Your task to perform on an android device: What's the weather going to be tomorrow? Image 0: 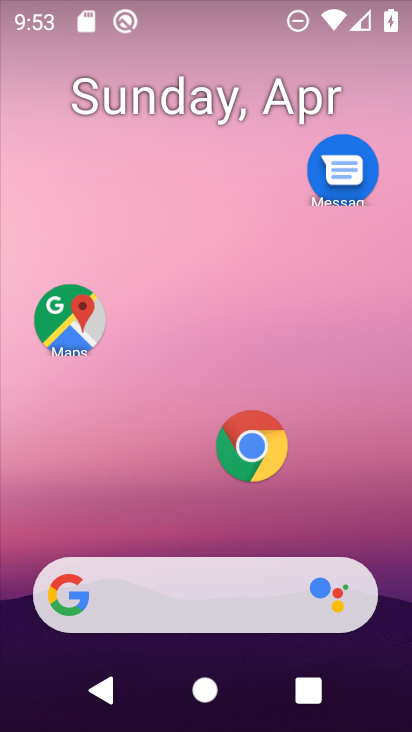
Step 0: click (344, 524)
Your task to perform on an android device: What's the weather going to be tomorrow? Image 1: 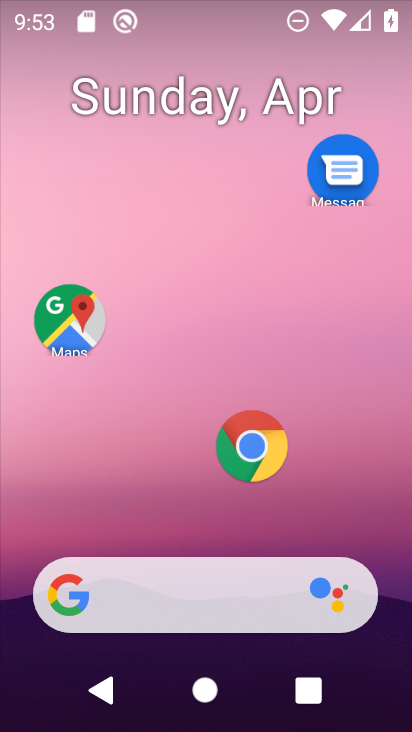
Step 1: drag from (199, 37) to (161, 7)
Your task to perform on an android device: What's the weather going to be tomorrow? Image 2: 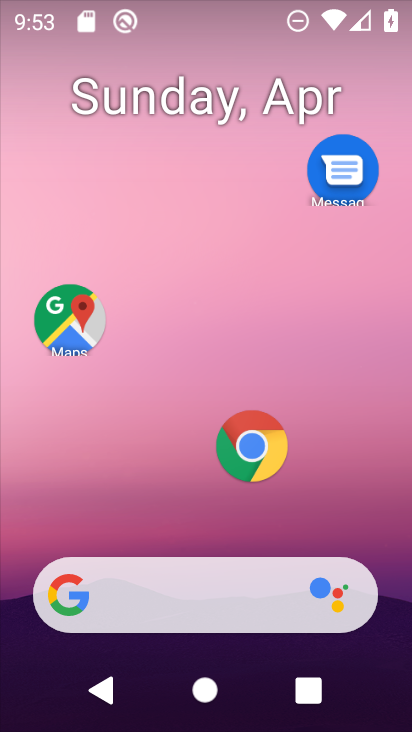
Step 2: drag from (208, 477) to (258, 121)
Your task to perform on an android device: What's the weather going to be tomorrow? Image 3: 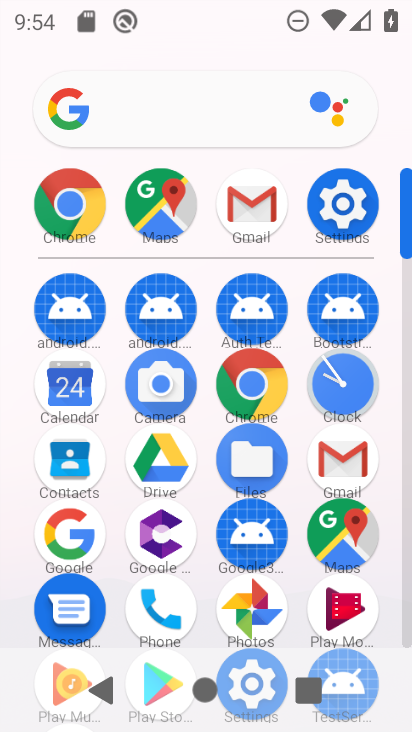
Step 3: drag from (208, 557) to (203, 295)
Your task to perform on an android device: What's the weather going to be tomorrow? Image 4: 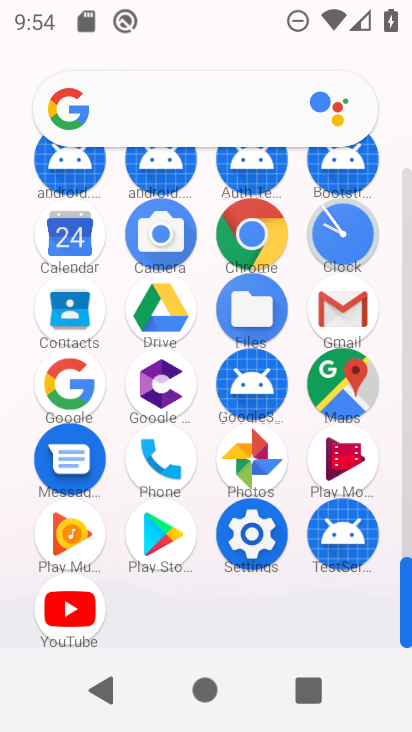
Step 4: drag from (201, 210) to (233, 689)
Your task to perform on an android device: What's the weather going to be tomorrow? Image 5: 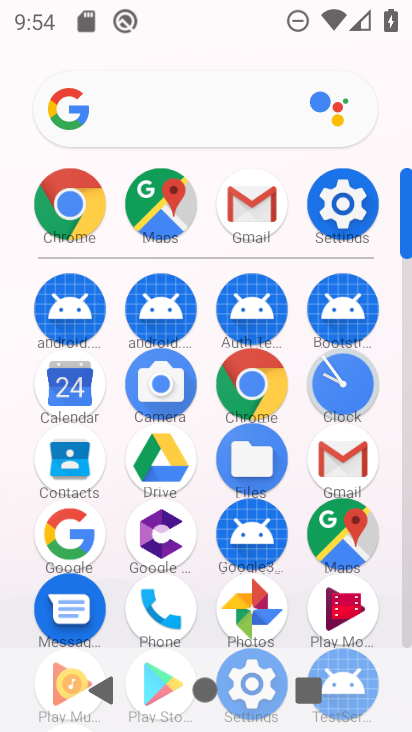
Step 5: click (214, 120)
Your task to perform on an android device: What's the weather going to be tomorrow? Image 6: 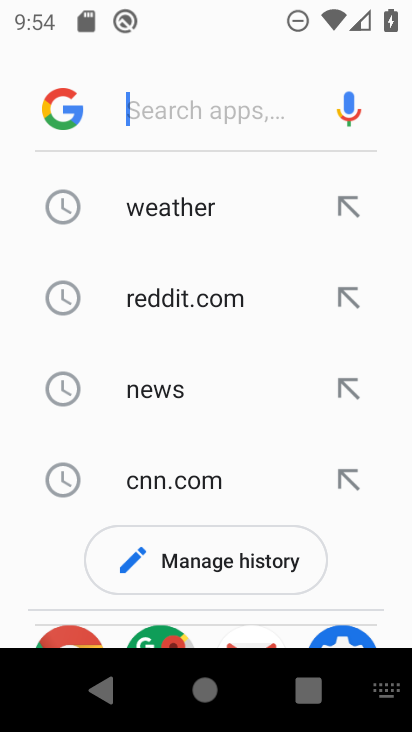
Step 6: drag from (237, 440) to (241, 191)
Your task to perform on an android device: What's the weather going to be tomorrow? Image 7: 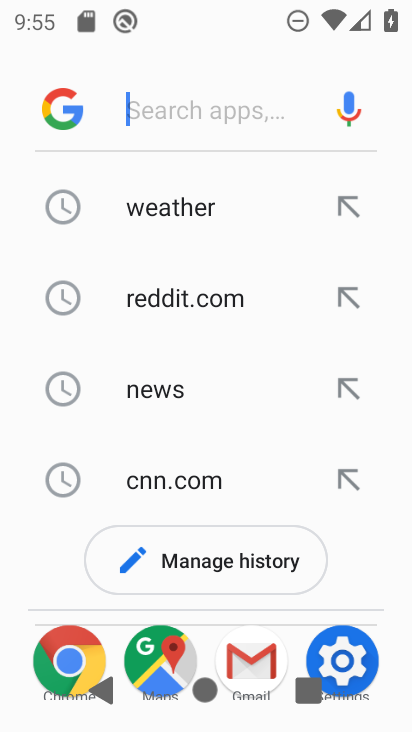
Step 7: click (197, 553)
Your task to perform on an android device: What's the weather going to be tomorrow? Image 8: 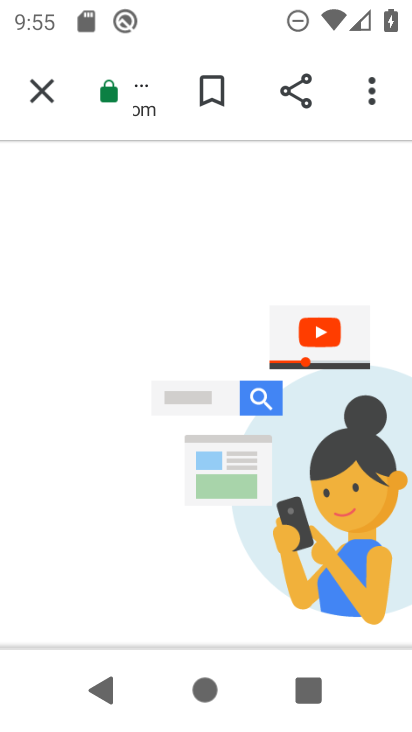
Step 8: click (35, 86)
Your task to perform on an android device: What's the weather going to be tomorrow? Image 9: 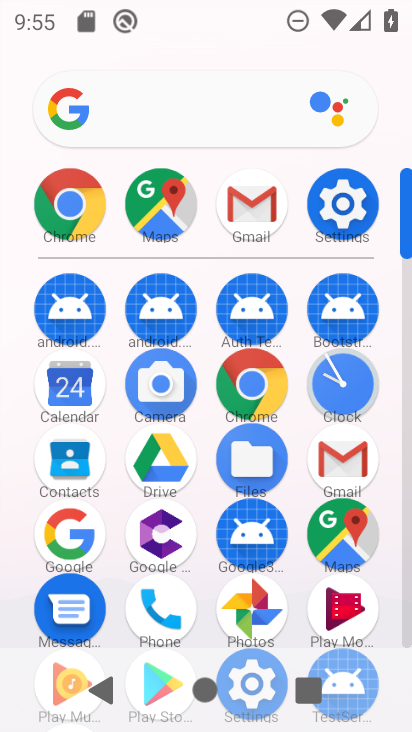
Step 9: click (188, 104)
Your task to perform on an android device: What's the weather going to be tomorrow? Image 10: 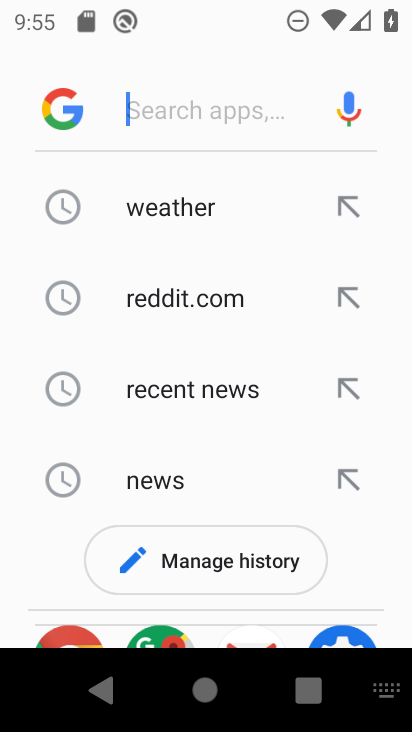
Step 10: type "weather tomorrow"
Your task to perform on an android device: What's the weather going to be tomorrow? Image 11: 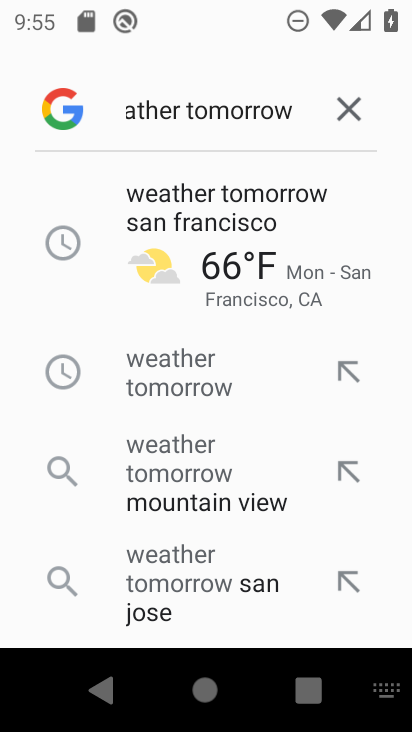
Step 11: click (226, 207)
Your task to perform on an android device: What's the weather going to be tomorrow? Image 12: 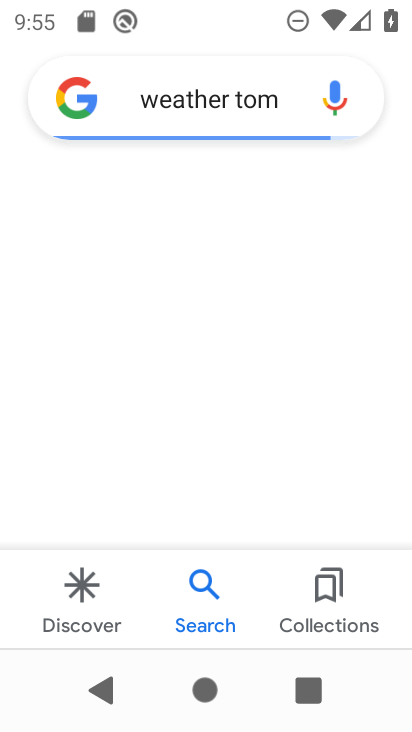
Step 12: task complete